Your task to perform on an android device: Open accessibility settings Image 0: 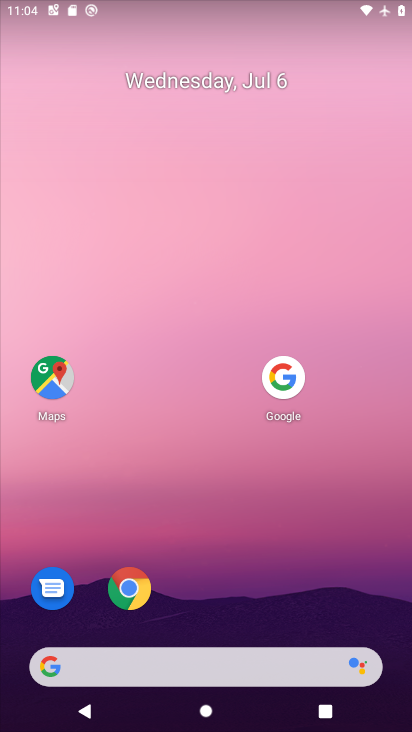
Step 0: drag from (162, 666) to (353, 46)
Your task to perform on an android device: Open accessibility settings Image 1: 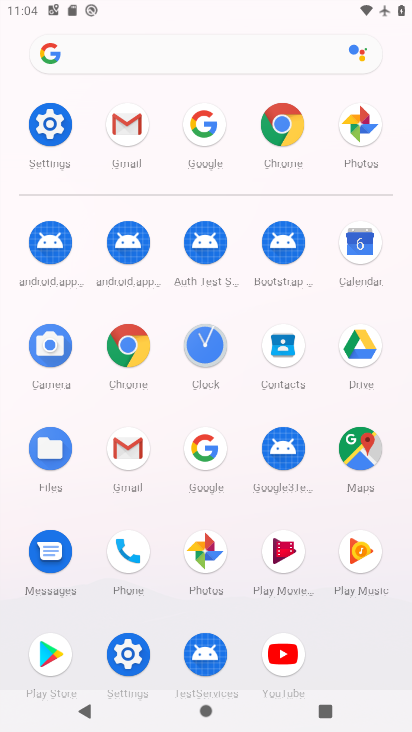
Step 1: click (60, 124)
Your task to perform on an android device: Open accessibility settings Image 2: 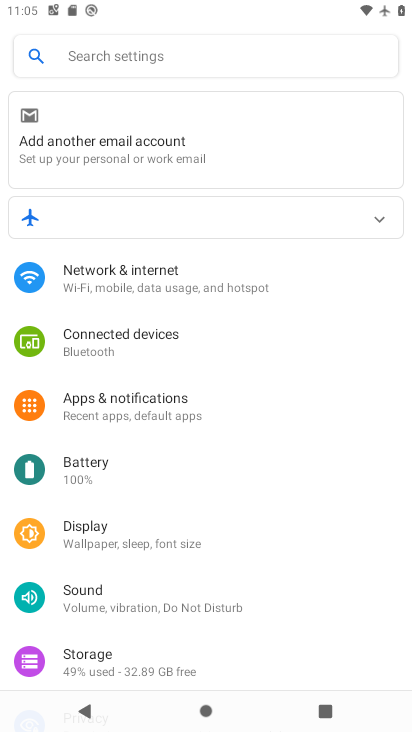
Step 2: drag from (160, 635) to (273, 244)
Your task to perform on an android device: Open accessibility settings Image 3: 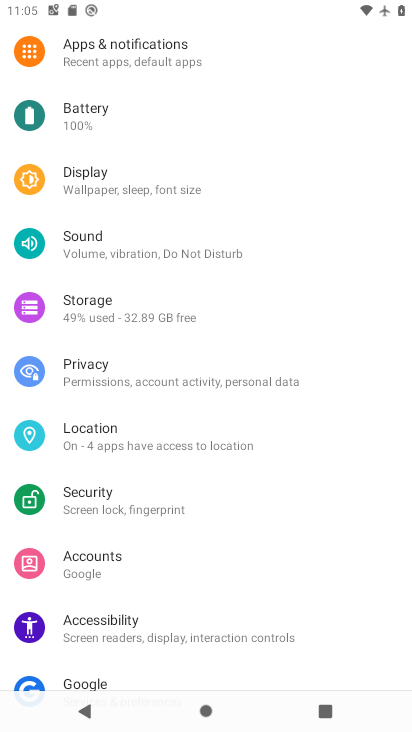
Step 3: click (113, 624)
Your task to perform on an android device: Open accessibility settings Image 4: 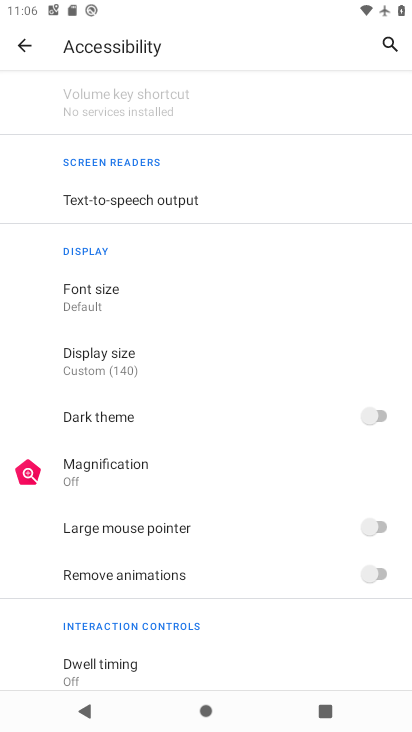
Step 4: task complete